Your task to perform on an android device: Go to privacy settings Image 0: 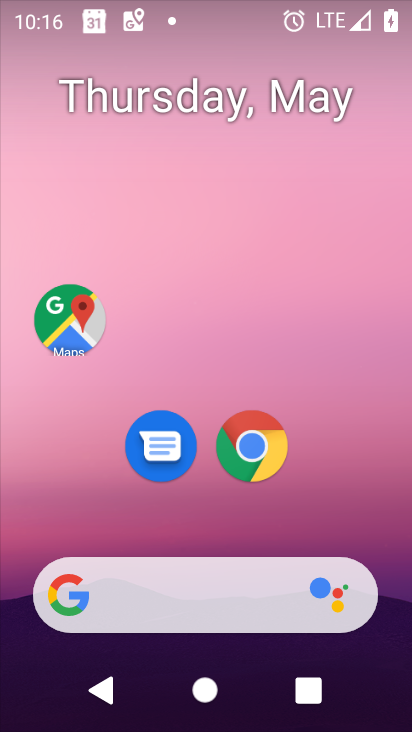
Step 0: drag from (400, 616) to (316, 162)
Your task to perform on an android device: Go to privacy settings Image 1: 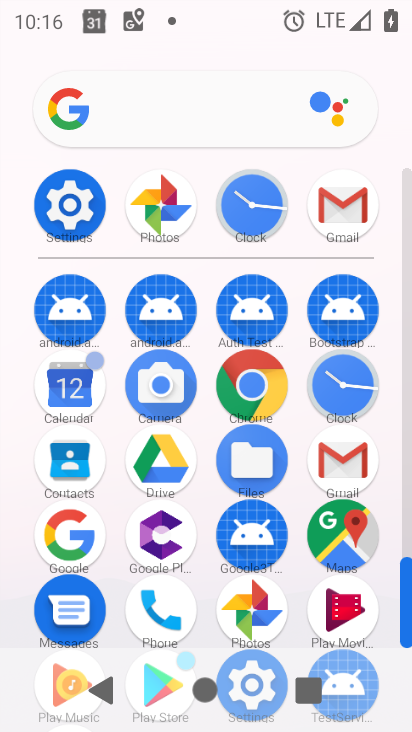
Step 1: click (405, 544)
Your task to perform on an android device: Go to privacy settings Image 2: 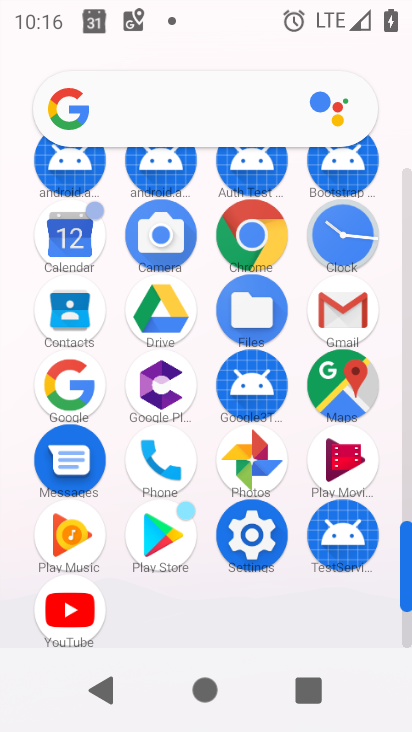
Step 2: click (250, 537)
Your task to perform on an android device: Go to privacy settings Image 3: 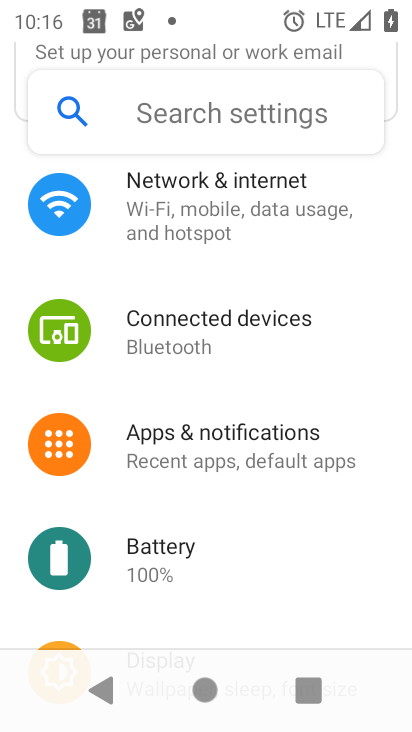
Step 3: drag from (235, 572) to (253, 185)
Your task to perform on an android device: Go to privacy settings Image 4: 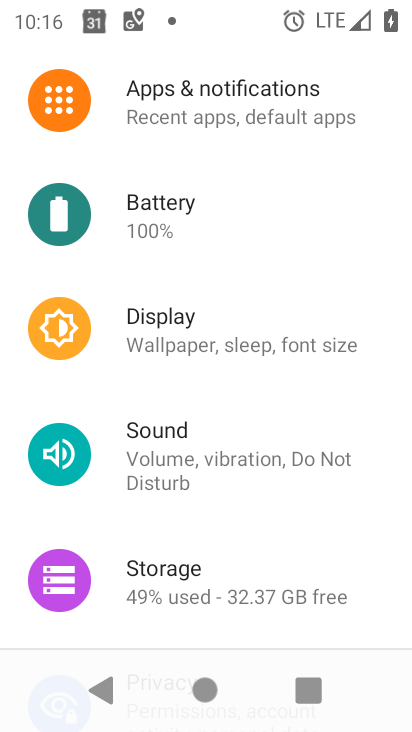
Step 4: drag from (259, 574) to (247, 214)
Your task to perform on an android device: Go to privacy settings Image 5: 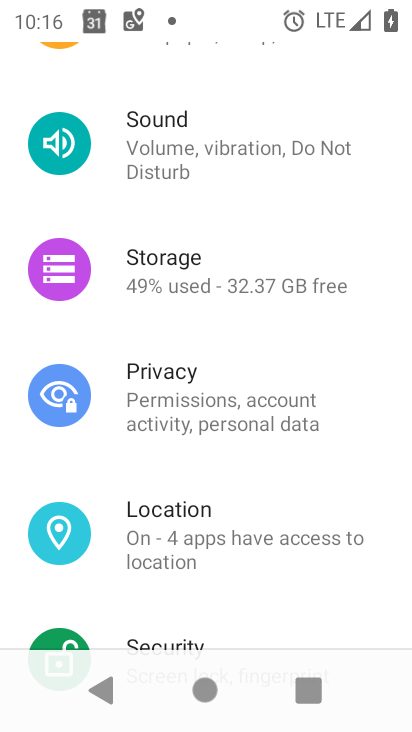
Step 5: click (166, 388)
Your task to perform on an android device: Go to privacy settings Image 6: 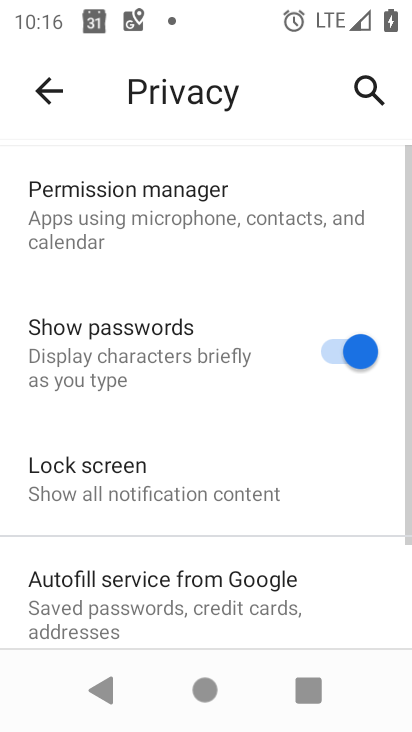
Step 6: drag from (203, 605) to (177, 164)
Your task to perform on an android device: Go to privacy settings Image 7: 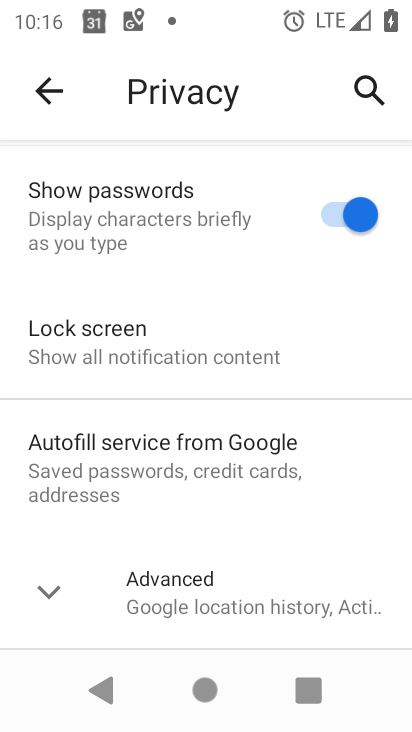
Step 7: click (50, 594)
Your task to perform on an android device: Go to privacy settings Image 8: 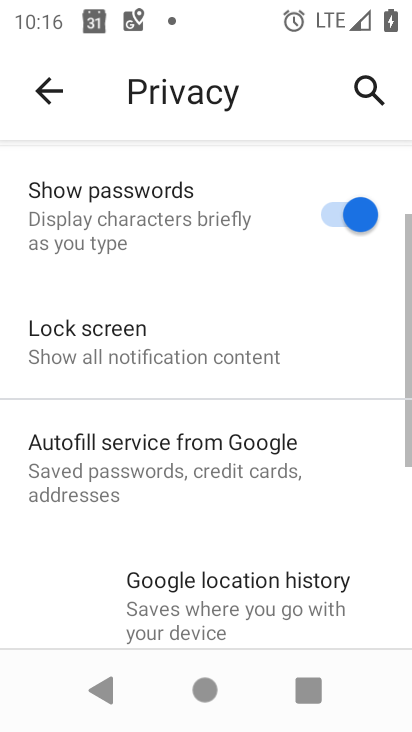
Step 8: task complete